Your task to perform on an android device: open a new tab in the chrome app Image 0: 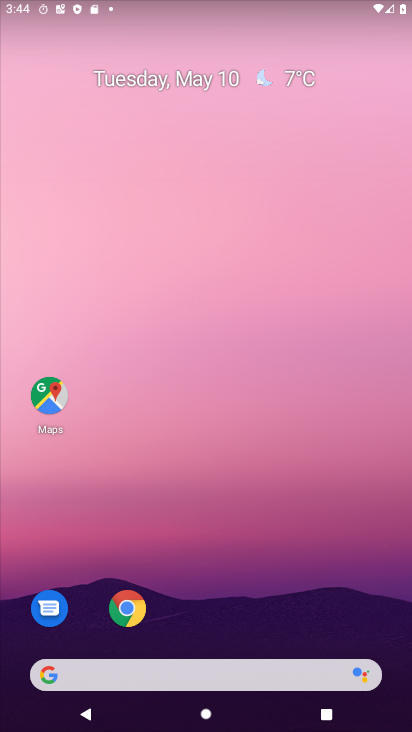
Step 0: click (131, 614)
Your task to perform on an android device: open a new tab in the chrome app Image 1: 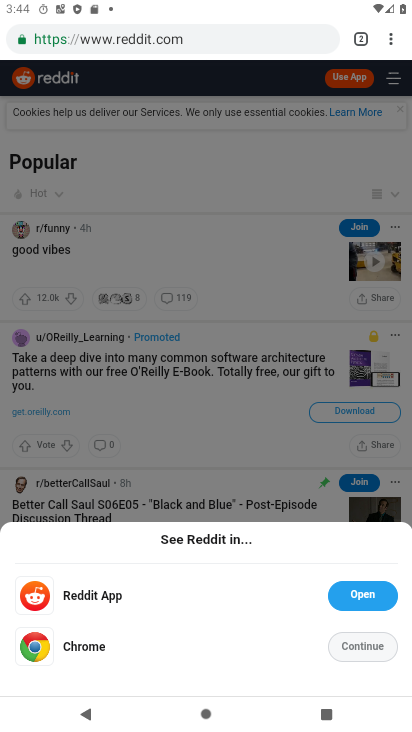
Step 1: task complete